Your task to perform on an android device: Open the phone app and click the voicemail tab. Image 0: 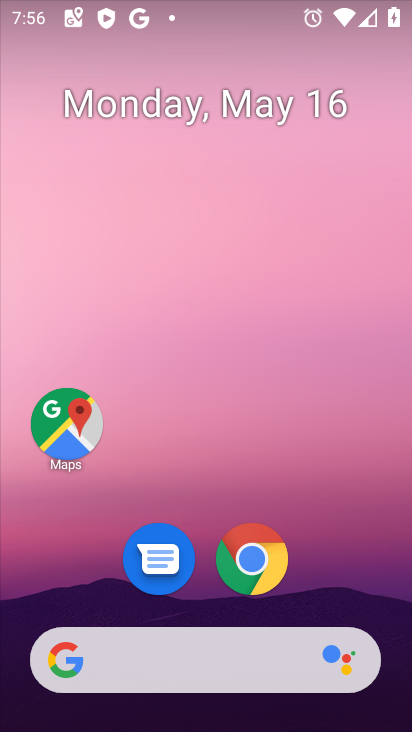
Step 0: drag from (353, 545) to (342, 231)
Your task to perform on an android device: Open the phone app and click the voicemail tab. Image 1: 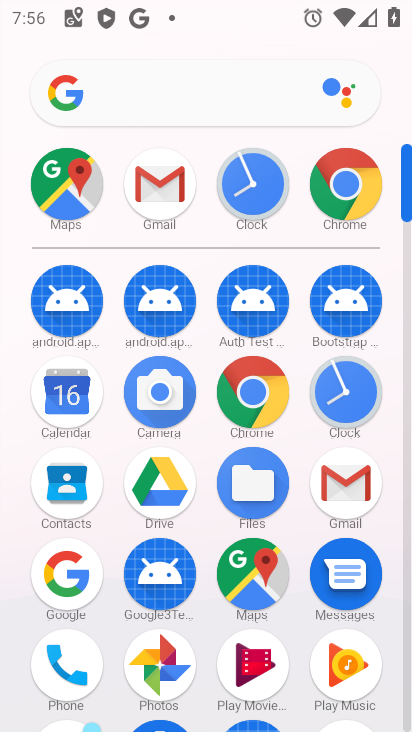
Step 1: click (68, 659)
Your task to perform on an android device: Open the phone app and click the voicemail tab. Image 2: 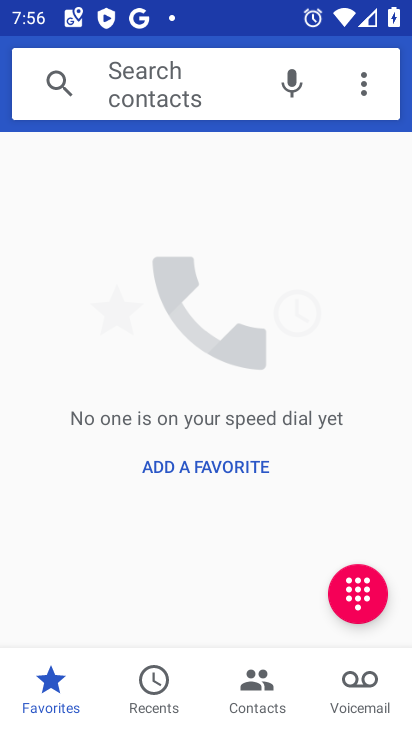
Step 2: click (346, 678)
Your task to perform on an android device: Open the phone app and click the voicemail tab. Image 3: 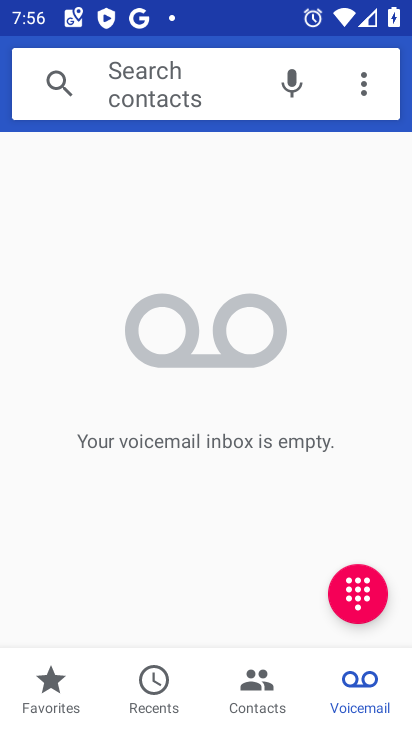
Step 3: task complete